Your task to perform on an android device: Open my contact list Image 0: 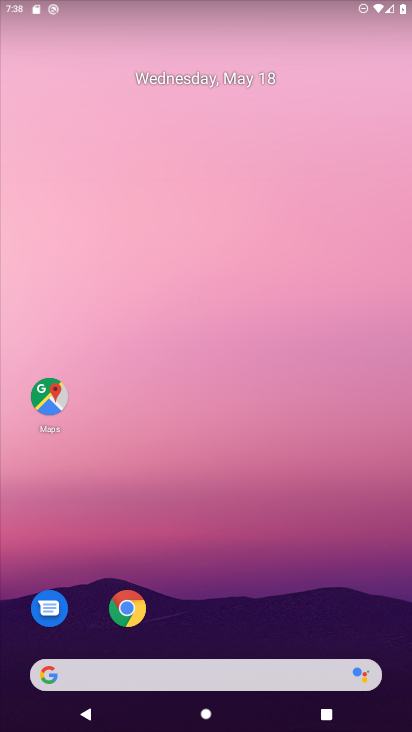
Step 0: drag from (335, 606) to (294, 0)
Your task to perform on an android device: Open my contact list Image 1: 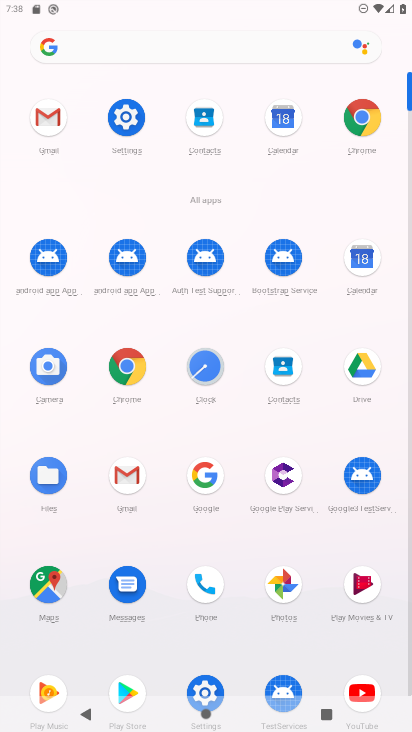
Step 1: click (208, 119)
Your task to perform on an android device: Open my contact list Image 2: 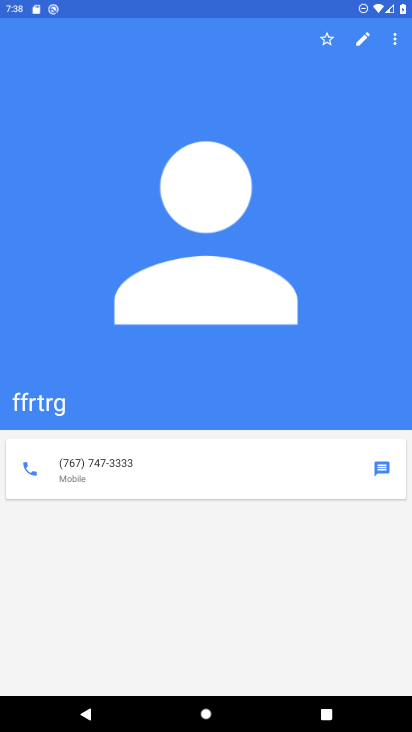
Step 2: task complete